Your task to perform on an android device: Open Google Chrome and click the shortcut for Amazon.com Image 0: 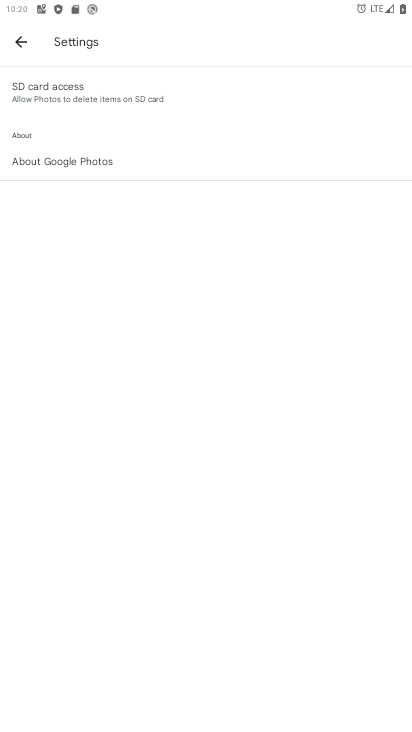
Step 0: press home button
Your task to perform on an android device: Open Google Chrome and click the shortcut for Amazon.com Image 1: 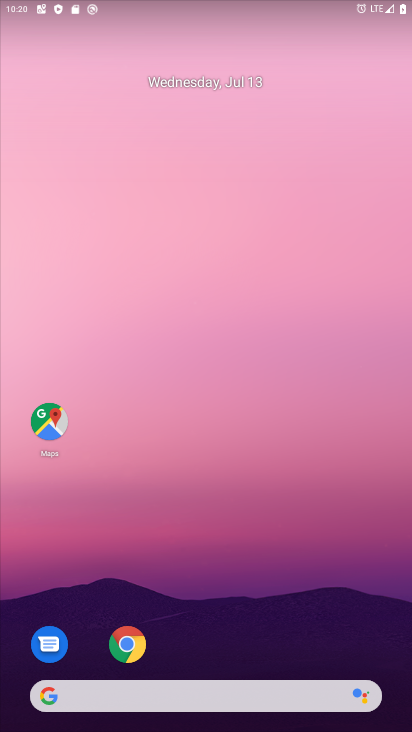
Step 1: drag from (230, 728) to (219, 131)
Your task to perform on an android device: Open Google Chrome and click the shortcut for Amazon.com Image 2: 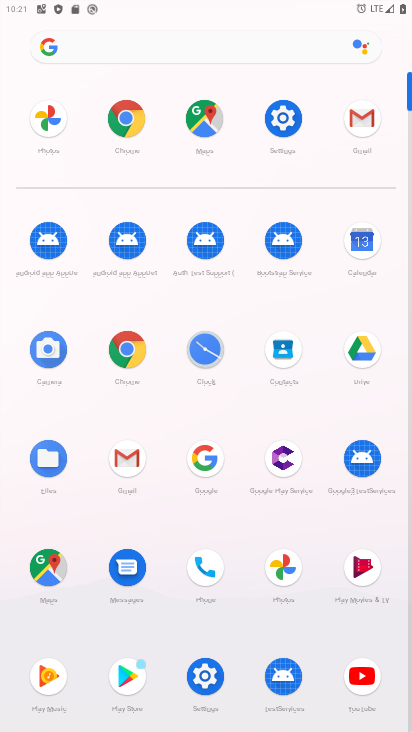
Step 2: click (130, 350)
Your task to perform on an android device: Open Google Chrome and click the shortcut for Amazon.com Image 3: 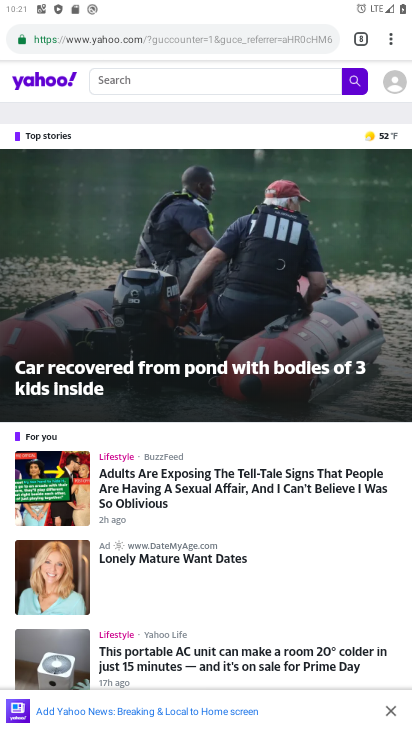
Step 3: click (391, 42)
Your task to perform on an android device: Open Google Chrome and click the shortcut for Amazon.com Image 4: 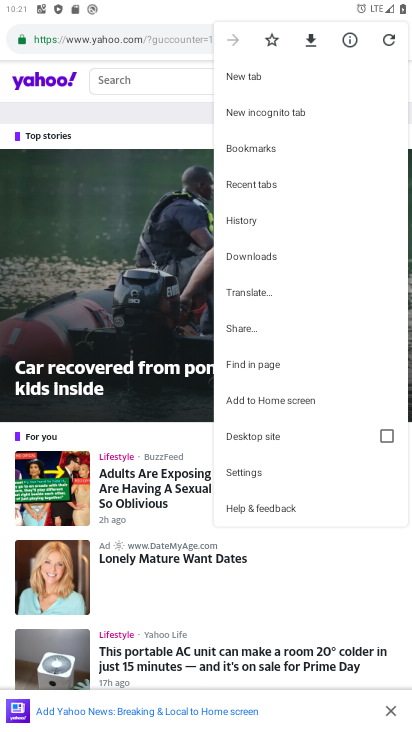
Step 4: click (247, 74)
Your task to perform on an android device: Open Google Chrome and click the shortcut for Amazon.com Image 5: 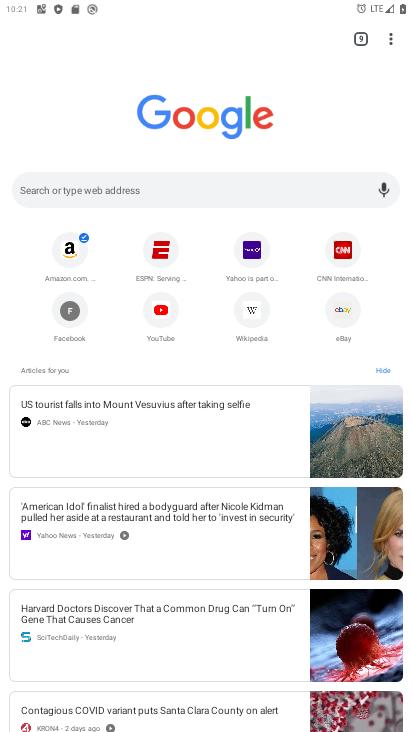
Step 5: click (73, 246)
Your task to perform on an android device: Open Google Chrome and click the shortcut for Amazon.com Image 6: 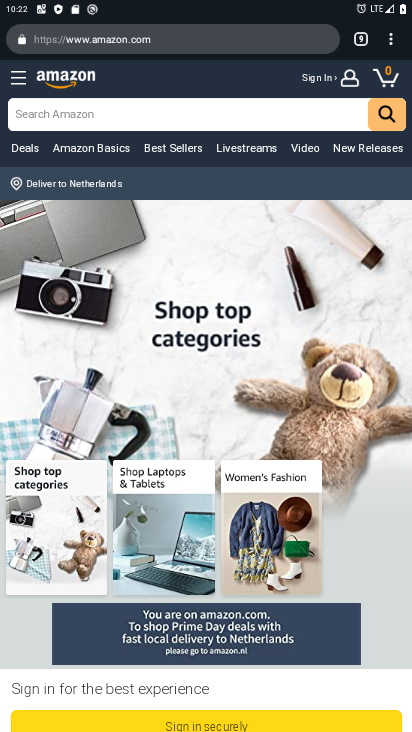
Step 6: click (391, 44)
Your task to perform on an android device: Open Google Chrome and click the shortcut for Amazon.com Image 7: 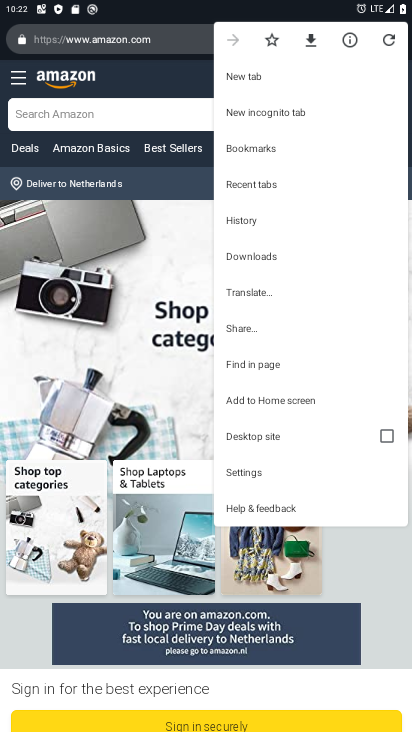
Step 7: click (246, 75)
Your task to perform on an android device: Open Google Chrome and click the shortcut for Amazon.com Image 8: 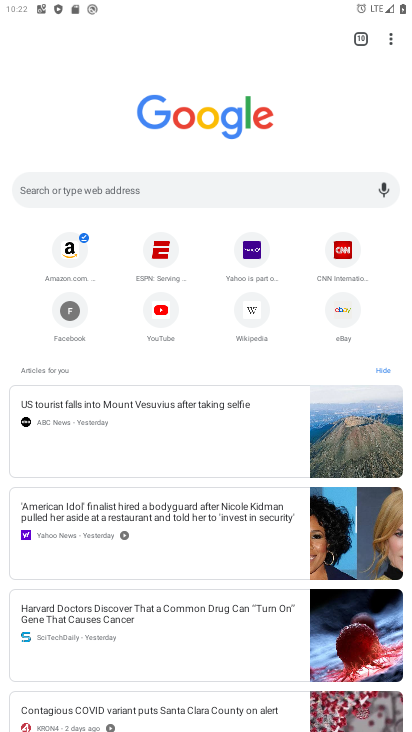
Step 8: click (65, 243)
Your task to perform on an android device: Open Google Chrome and click the shortcut for Amazon.com Image 9: 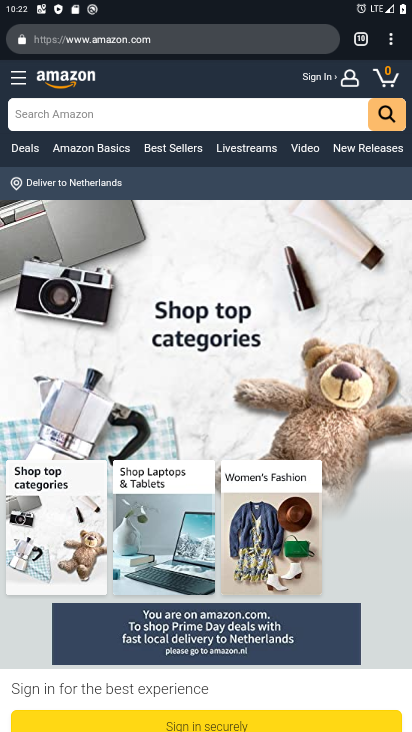
Step 9: task complete